Your task to perform on an android device: star an email in the gmail app Image 0: 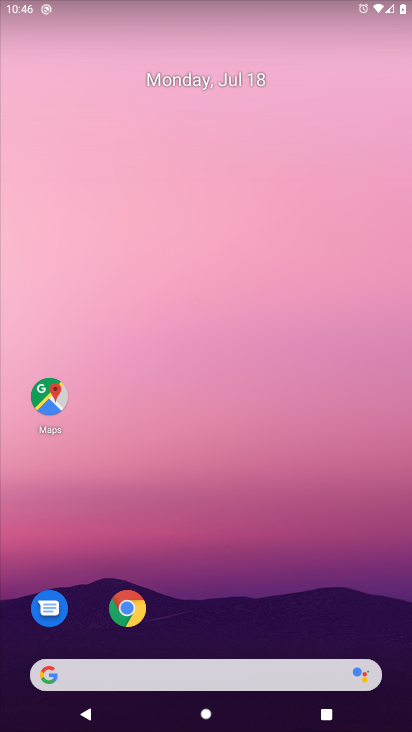
Step 0: drag from (46, 678) to (247, 34)
Your task to perform on an android device: star an email in the gmail app Image 1: 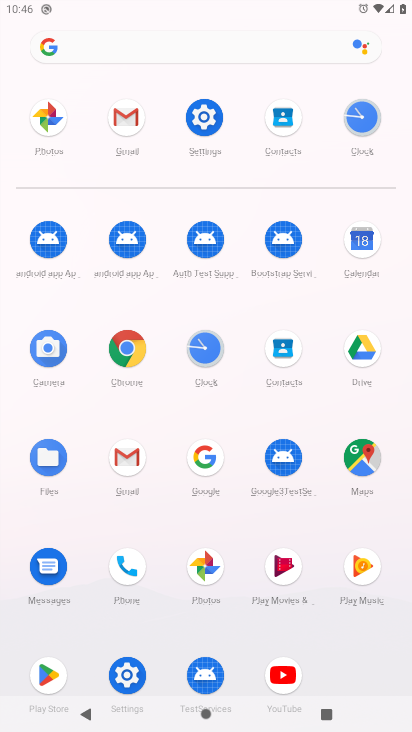
Step 1: click (124, 456)
Your task to perform on an android device: star an email in the gmail app Image 2: 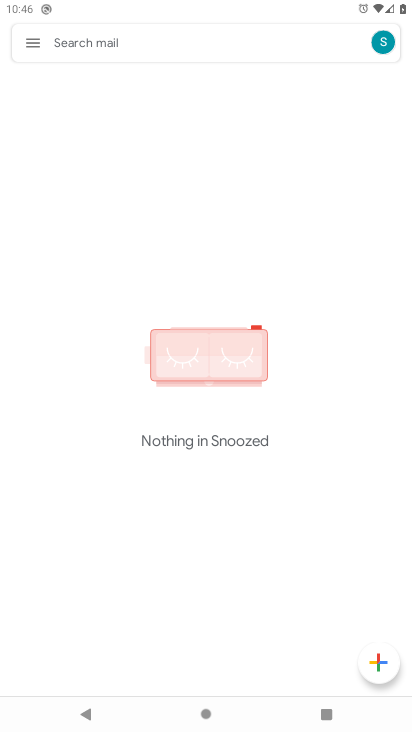
Step 2: click (28, 36)
Your task to perform on an android device: star an email in the gmail app Image 3: 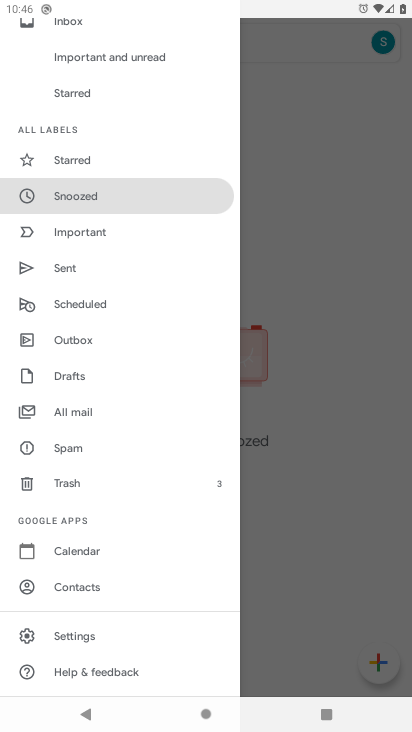
Step 3: click (58, 164)
Your task to perform on an android device: star an email in the gmail app Image 4: 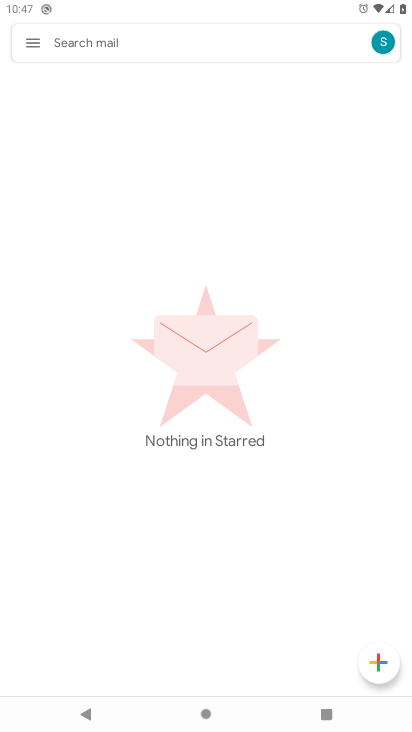
Step 4: task complete